Your task to perform on an android device: Do I have any events today? Image 0: 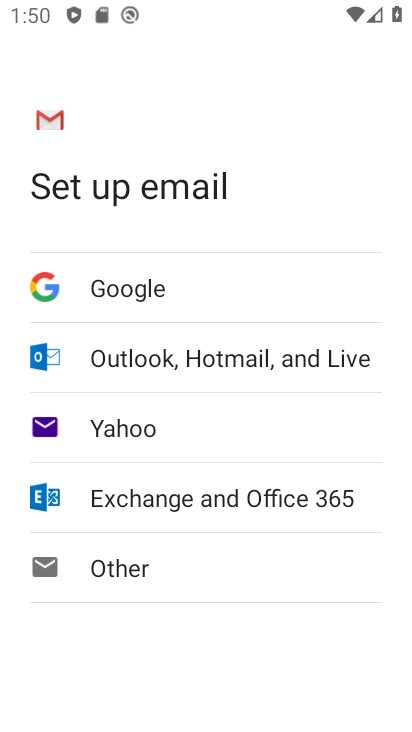
Step 0: press home button
Your task to perform on an android device: Do I have any events today? Image 1: 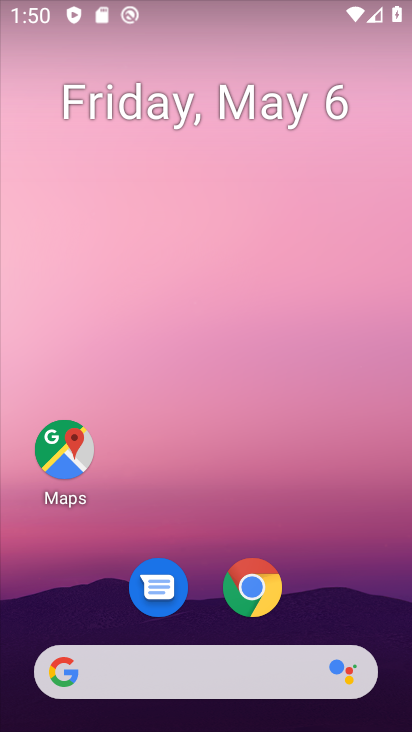
Step 1: drag from (338, 624) to (373, 37)
Your task to perform on an android device: Do I have any events today? Image 2: 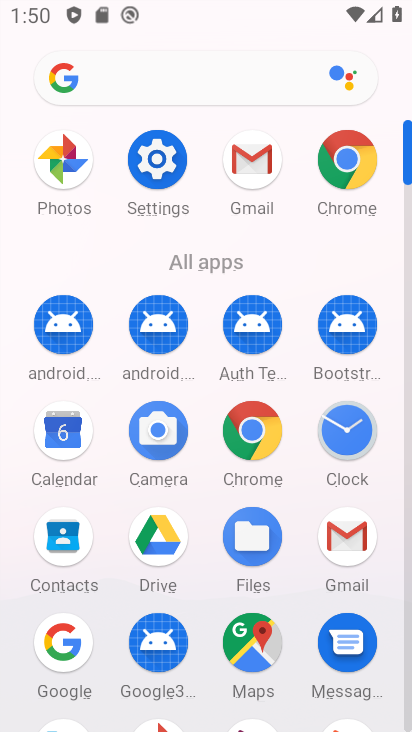
Step 2: click (60, 444)
Your task to perform on an android device: Do I have any events today? Image 3: 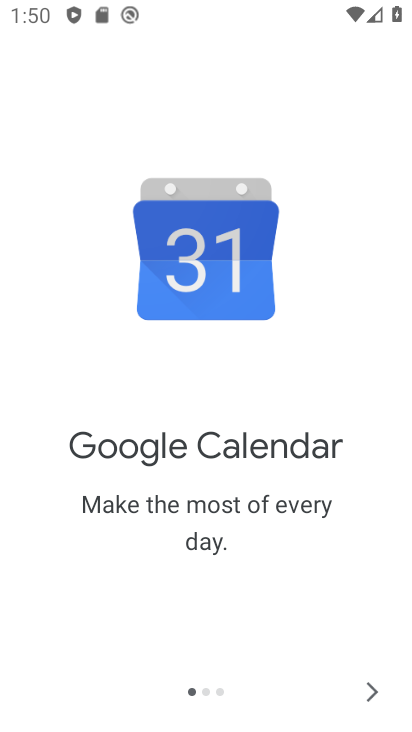
Step 3: click (367, 693)
Your task to perform on an android device: Do I have any events today? Image 4: 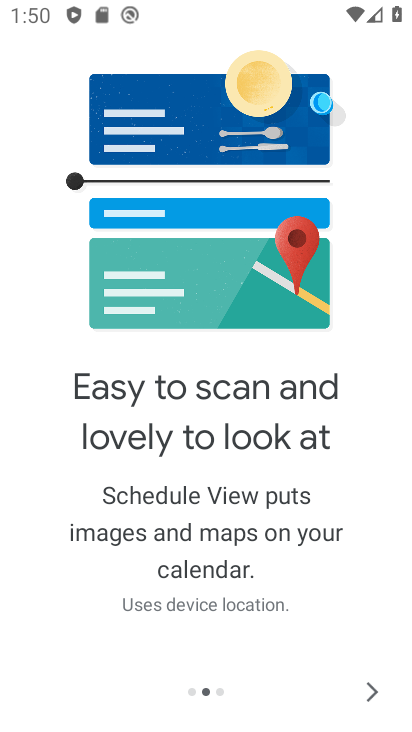
Step 4: click (367, 693)
Your task to perform on an android device: Do I have any events today? Image 5: 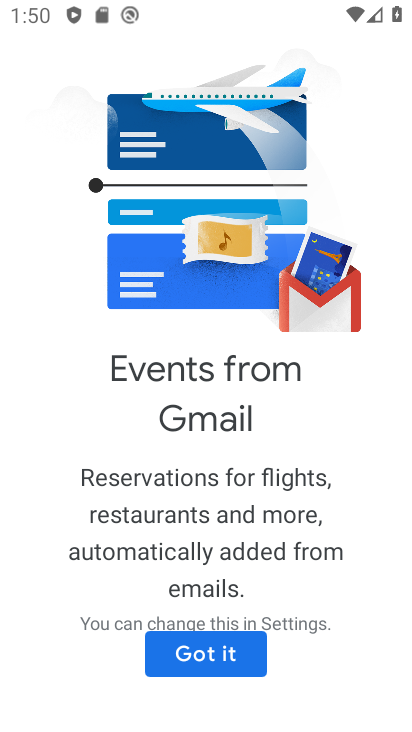
Step 5: click (191, 658)
Your task to perform on an android device: Do I have any events today? Image 6: 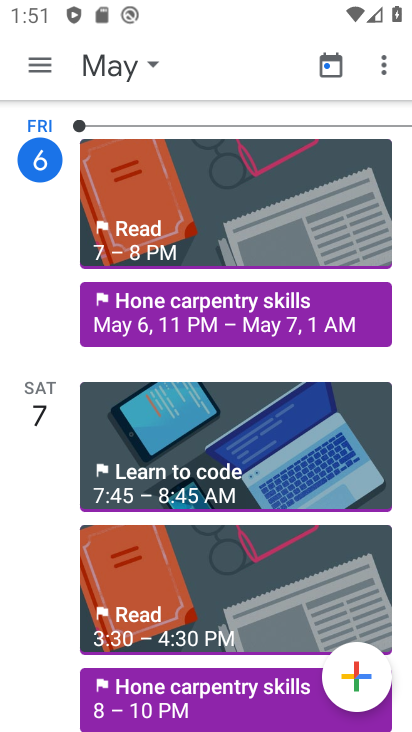
Step 6: click (93, 67)
Your task to perform on an android device: Do I have any events today? Image 7: 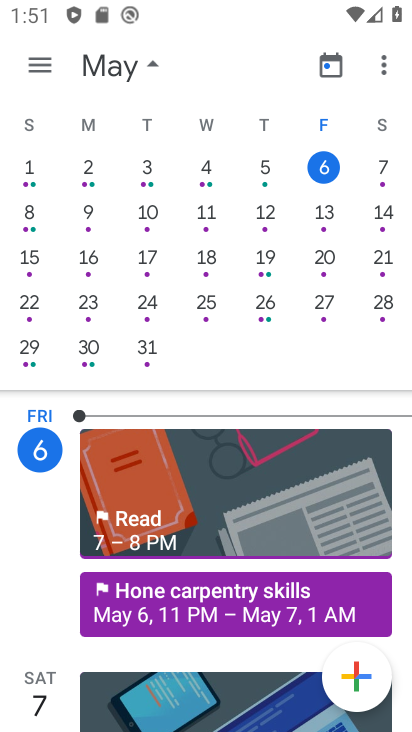
Step 7: click (313, 173)
Your task to perform on an android device: Do I have any events today? Image 8: 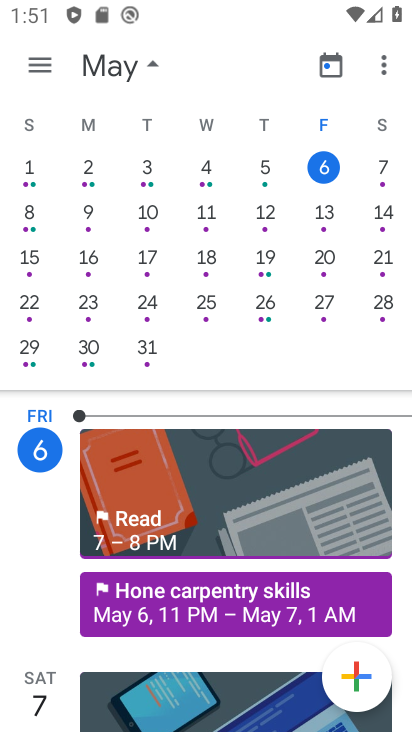
Step 8: task complete